Your task to perform on an android device: turn smart compose on in the gmail app Image 0: 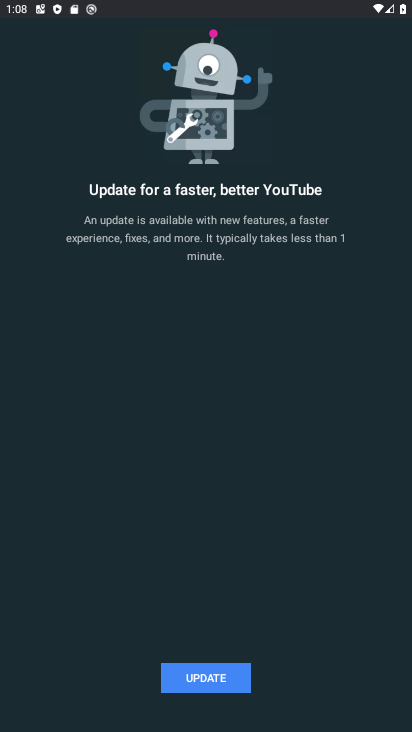
Step 0: press home button
Your task to perform on an android device: turn smart compose on in the gmail app Image 1: 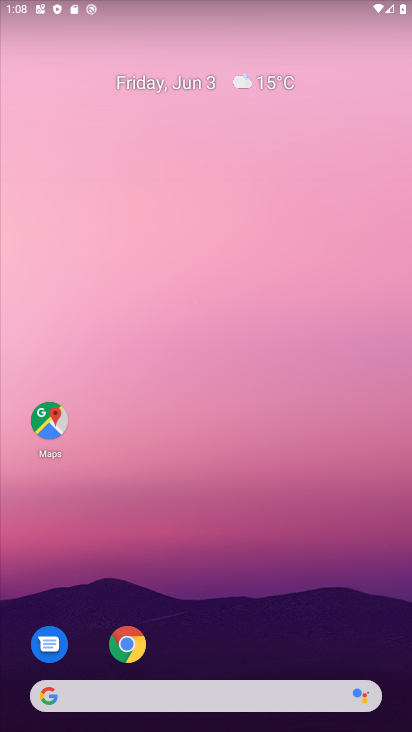
Step 1: drag from (215, 638) to (257, 88)
Your task to perform on an android device: turn smart compose on in the gmail app Image 2: 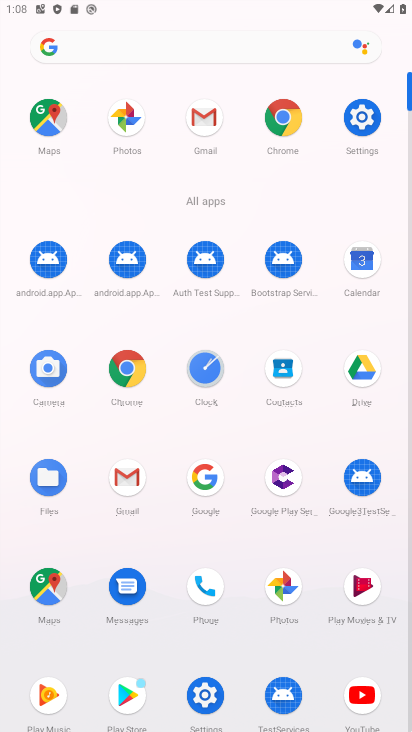
Step 2: click (129, 486)
Your task to perform on an android device: turn smart compose on in the gmail app Image 3: 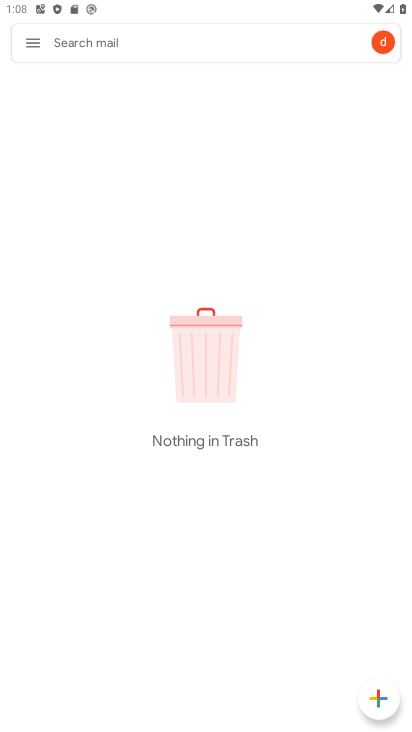
Step 3: click (22, 47)
Your task to perform on an android device: turn smart compose on in the gmail app Image 4: 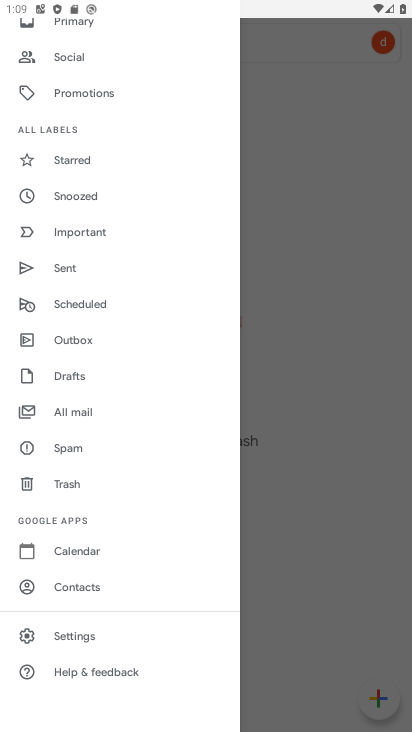
Step 4: click (76, 645)
Your task to perform on an android device: turn smart compose on in the gmail app Image 5: 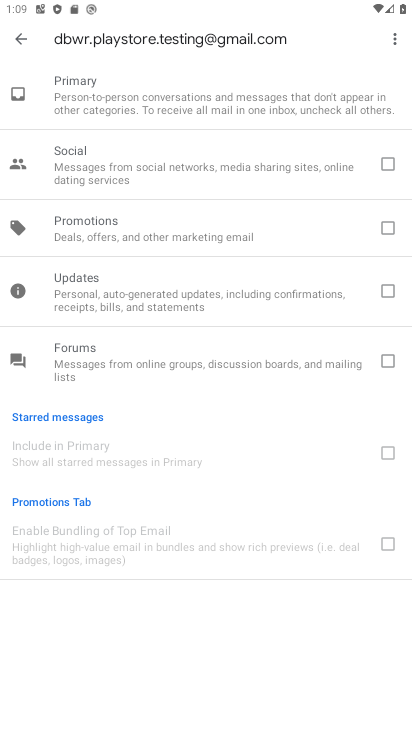
Step 5: click (17, 38)
Your task to perform on an android device: turn smart compose on in the gmail app Image 6: 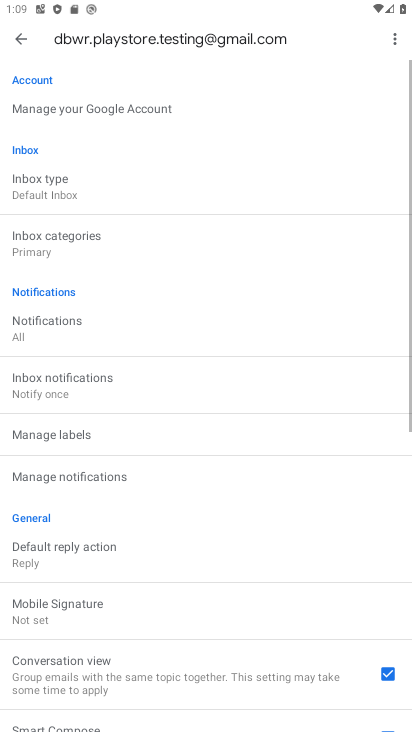
Step 6: task complete